Your task to perform on an android device: Check the news Image 0: 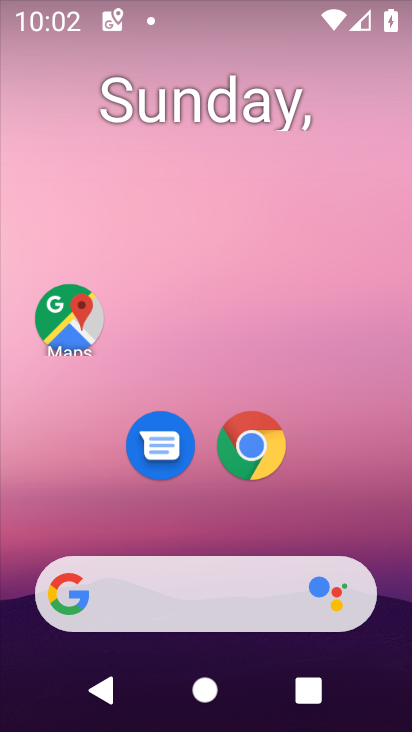
Step 0: press home button
Your task to perform on an android device: Check the news Image 1: 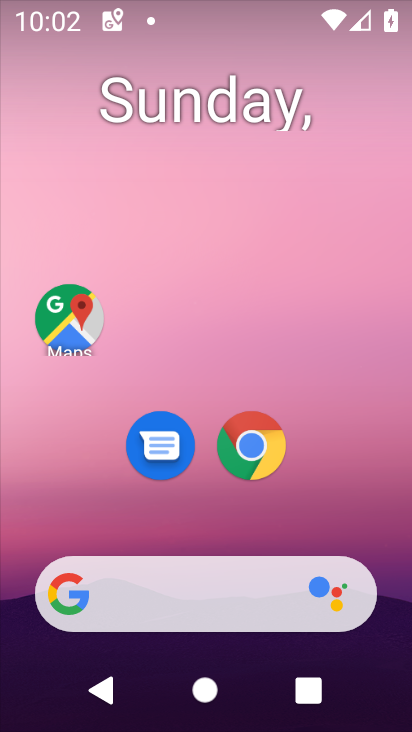
Step 1: drag from (366, 498) to (363, 181)
Your task to perform on an android device: Check the news Image 2: 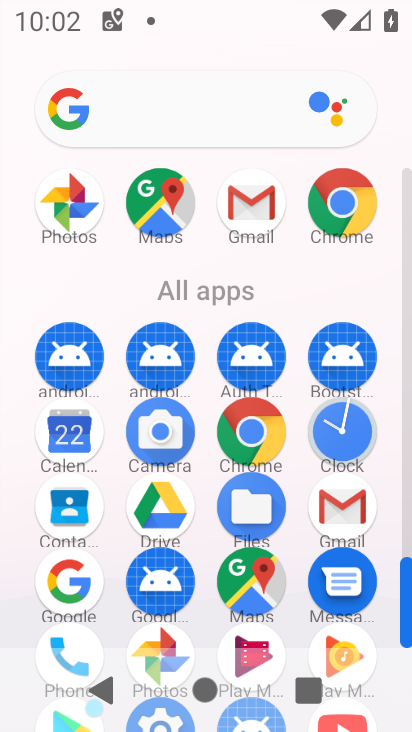
Step 2: click (337, 203)
Your task to perform on an android device: Check the news Image 3: 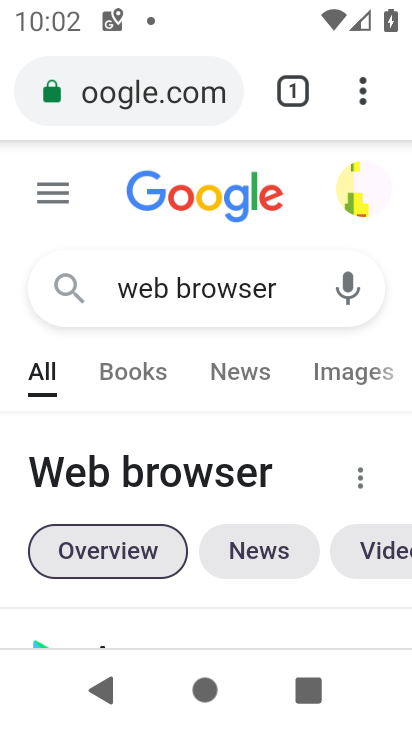
Step 3: click (175, 88)
Your task to perform on an android device: Check the news Image 4: 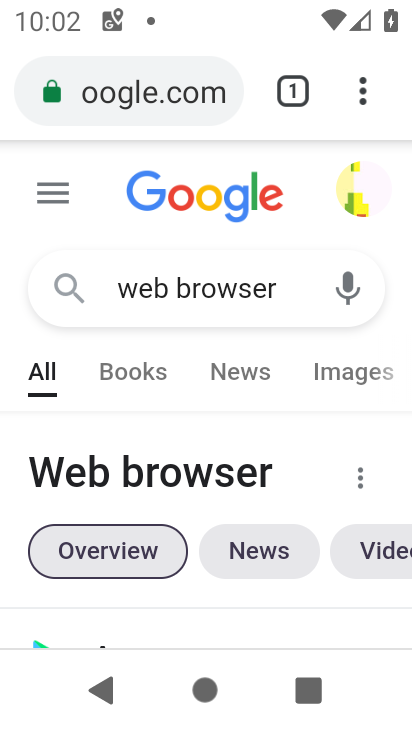
Step 4: click (175, 88)
Your task to perform on an android device: Check the news Image 5: 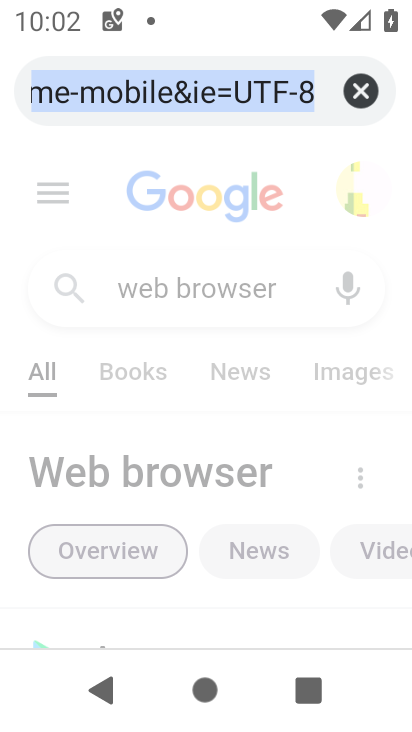
Step 5: click (175, 88)
Your task to perform on an android device: Check the news Image 6: 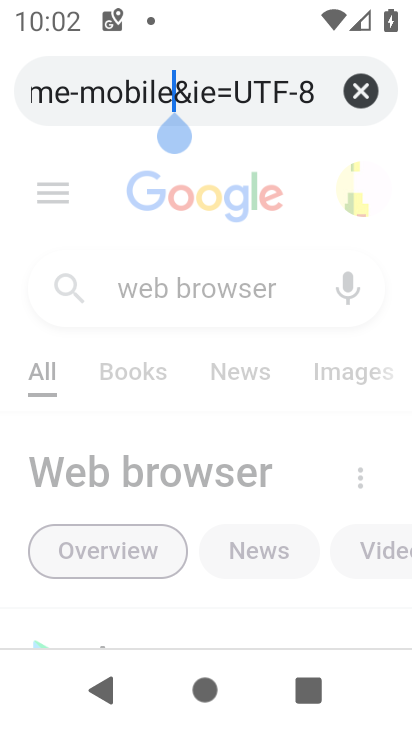
Step 6: click (175, 88)
Your task to perform on an android device: Check the news Image 7: 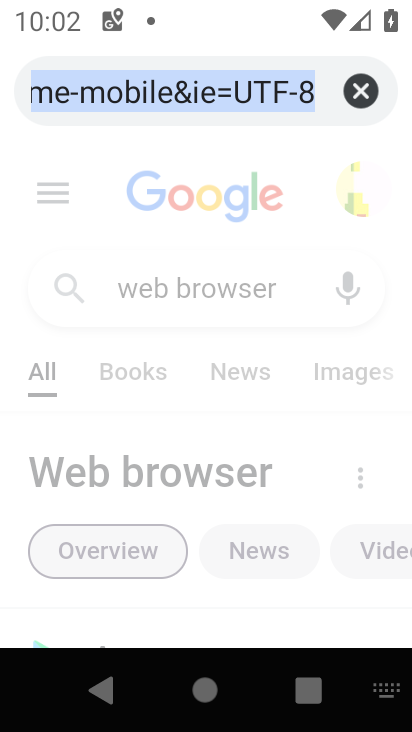
Step 7: click (175, 88)
Your task to perform on an android device: Check the news Image 8: 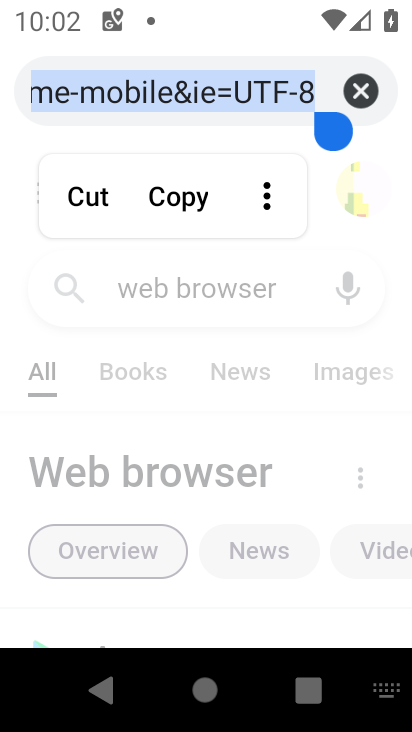
Step 8: click (364, 98)
Your task to perform on an android device: Check the news Image 9: 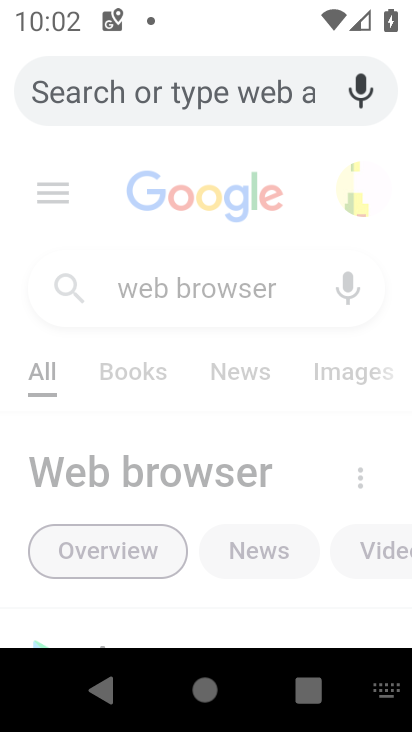
Step 9: type " news"
Your task to perform on an android device: Check the news Image 10: 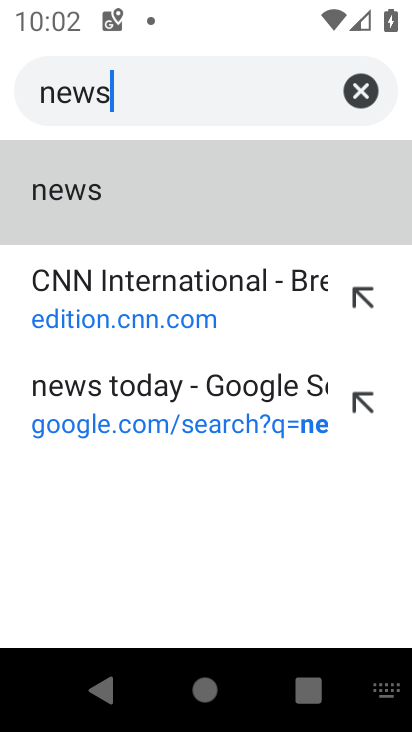
Step 10: click (147, 221)
Your task to perform on an android device: Check the news Image 11: 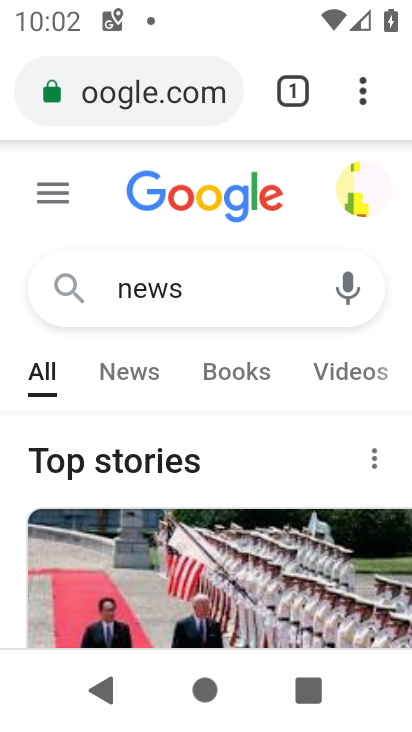
Step 11: task complete